Your task to perform on an android device: change the clock display to analog Image 0: 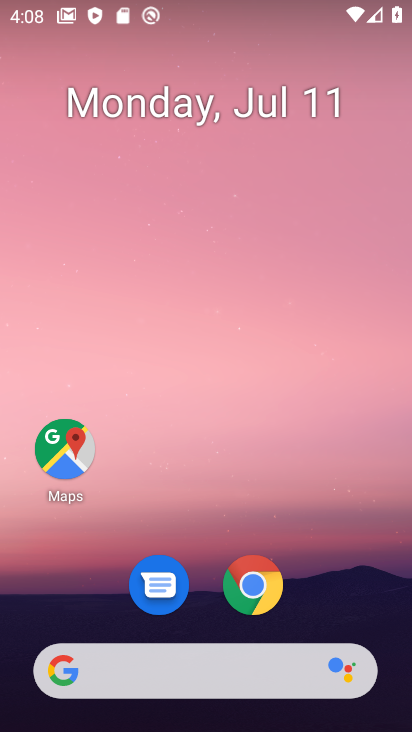
Step 0: drag from (203, 494) to (179, 30)
Your task to perform on an android device: change the clock display to analog Image 1: 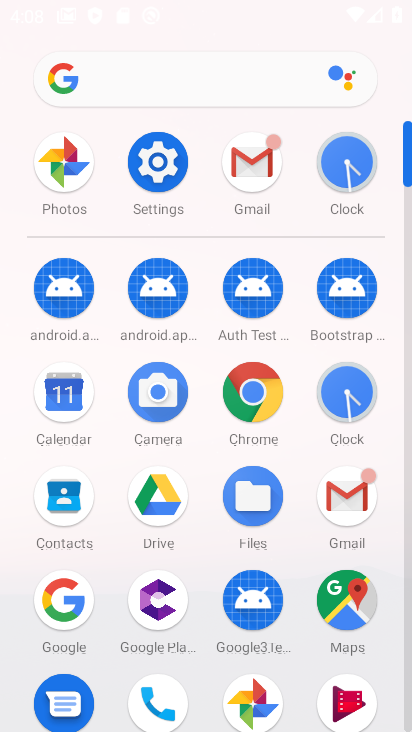
Step 1: click (349, 386)
Your task to perform on an android device: change the clock display to analog Image 2: 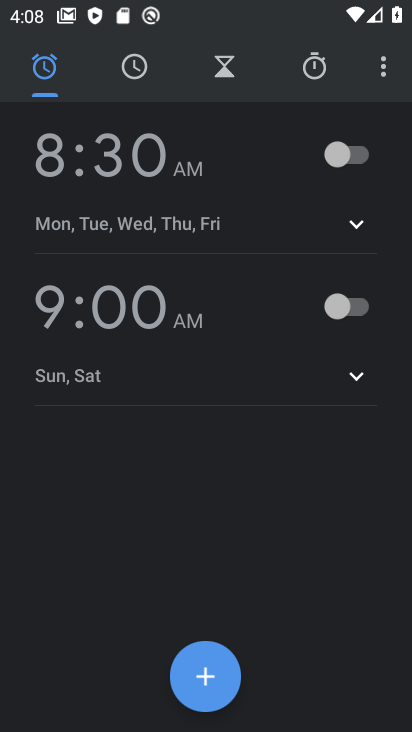
Step 2: click (123, 62)
Your task to perform on an android device: change the clock display to analog Image 3: 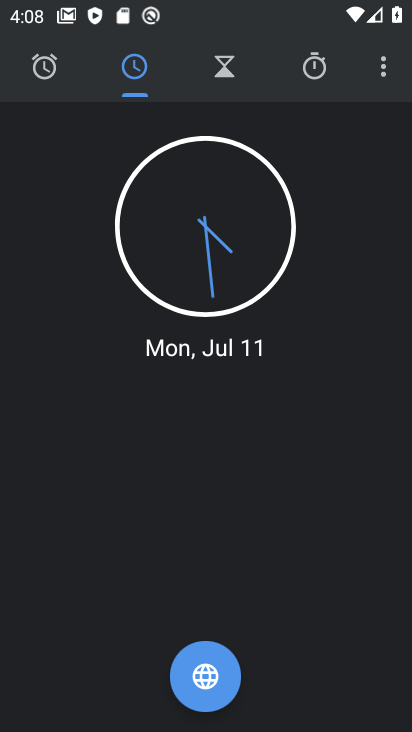
Step 3: task complete